Your task to perform on an android device: check storage Image 0: 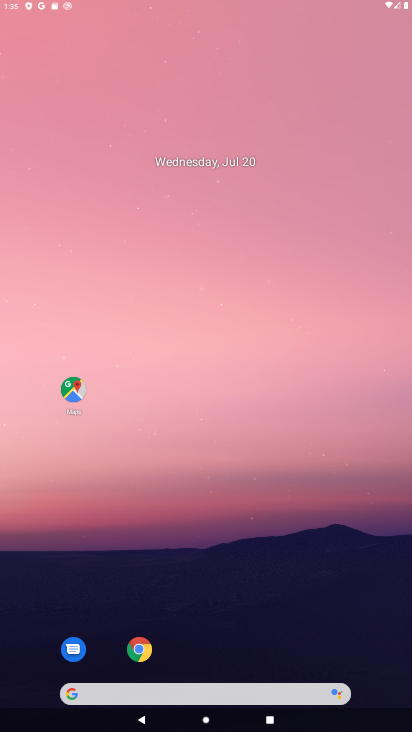
Step 0: click (276, 164)
Your task to perform on an android device: check storage Image 1: 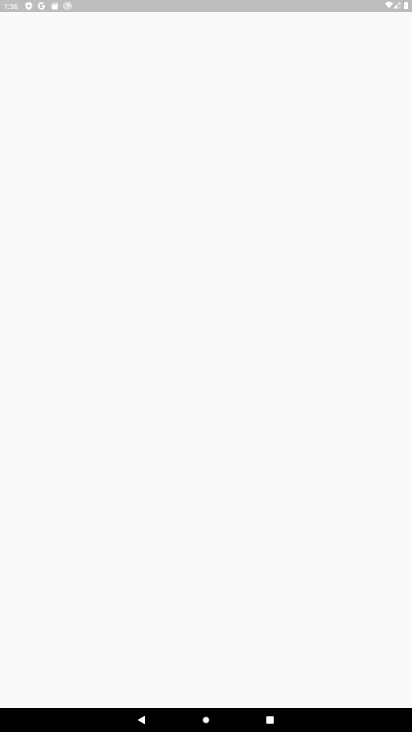
Step 1: press home button
Your task to perform on an android device: check storage Image 2: 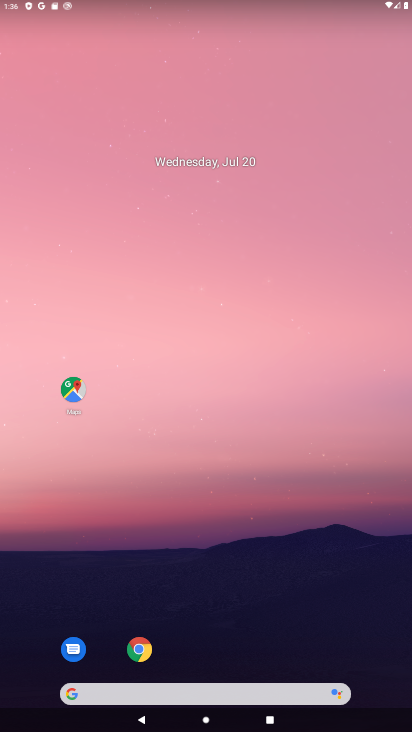
Step 2: drag from (270, 638) to (213, 85)
Your task to perform on an android device: check storage Image 3: 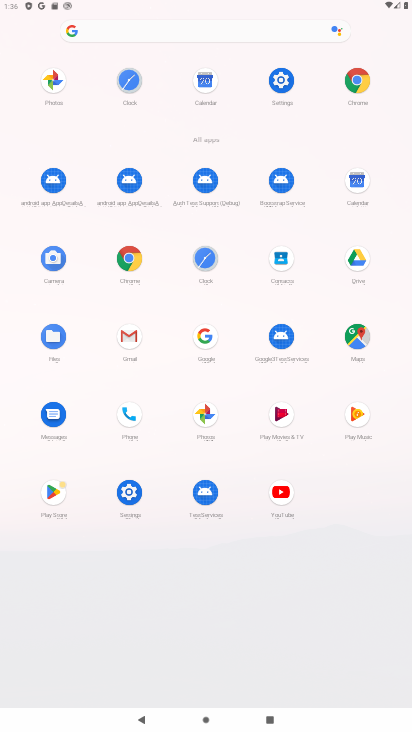
Step 3: click (284, 74)
Your task to perform on an android device: check storage Image 4: 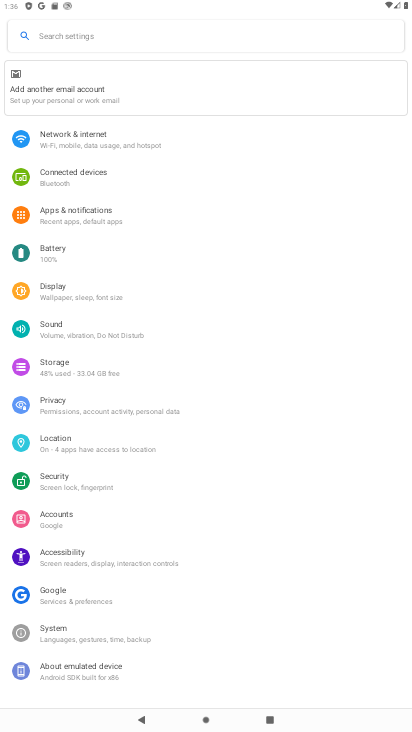
Step 4: click (66, 370)
Your task to perform on an android device: check storage Image 5: 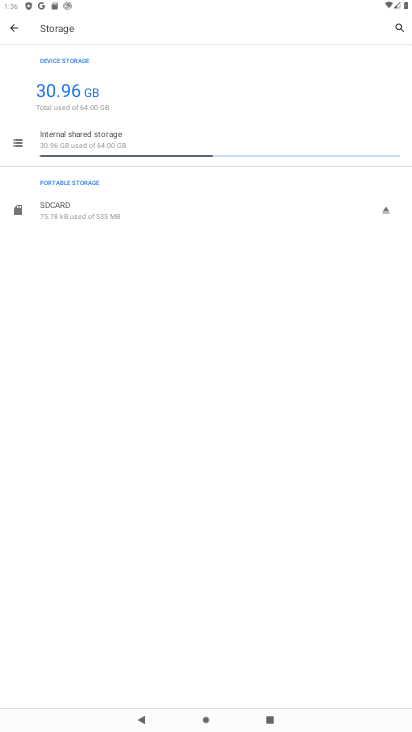
Step 5: task complete